Your task to perform on an android device: Go to Maps Image 0: 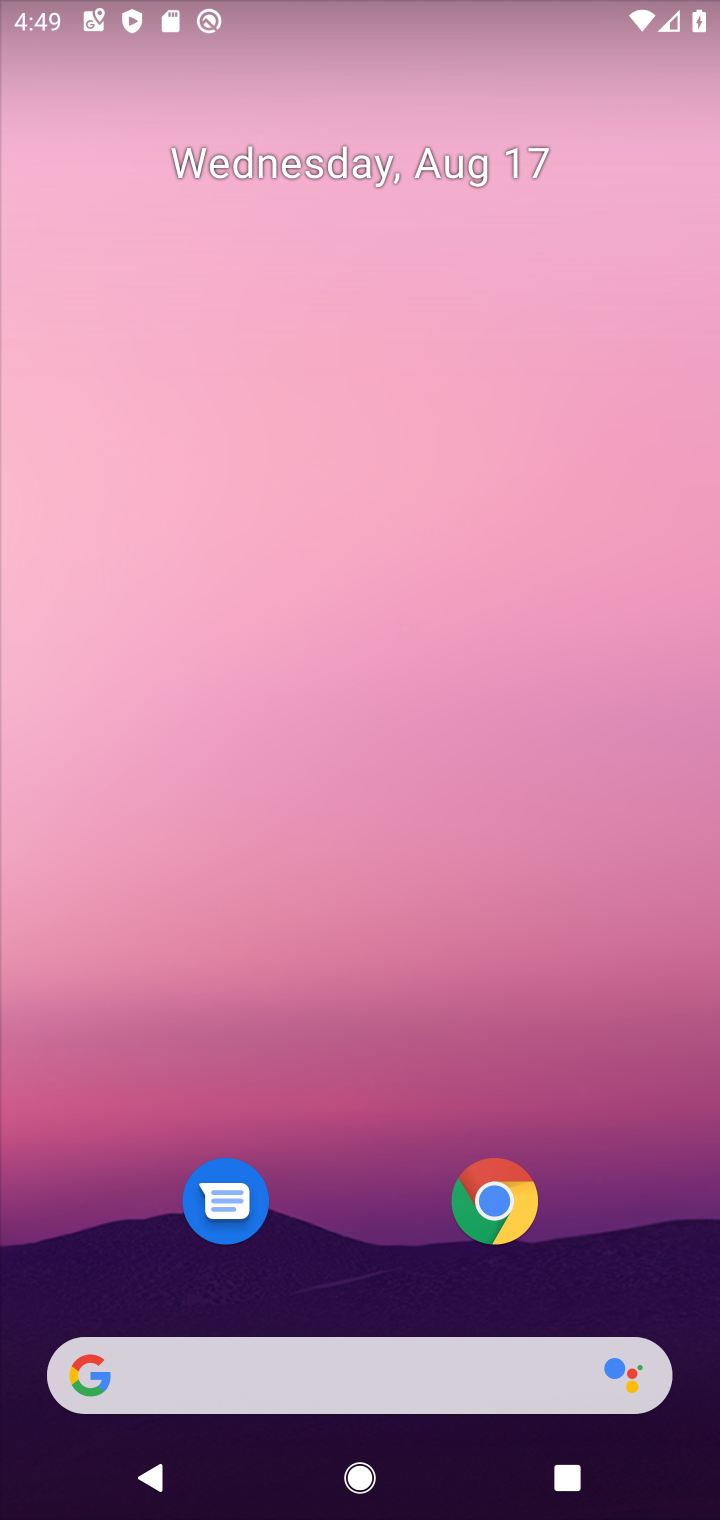
Step 0: drag from (359, 1183) to (312, 94)
Your task to perform on an android device: Go to Maps Image 1: 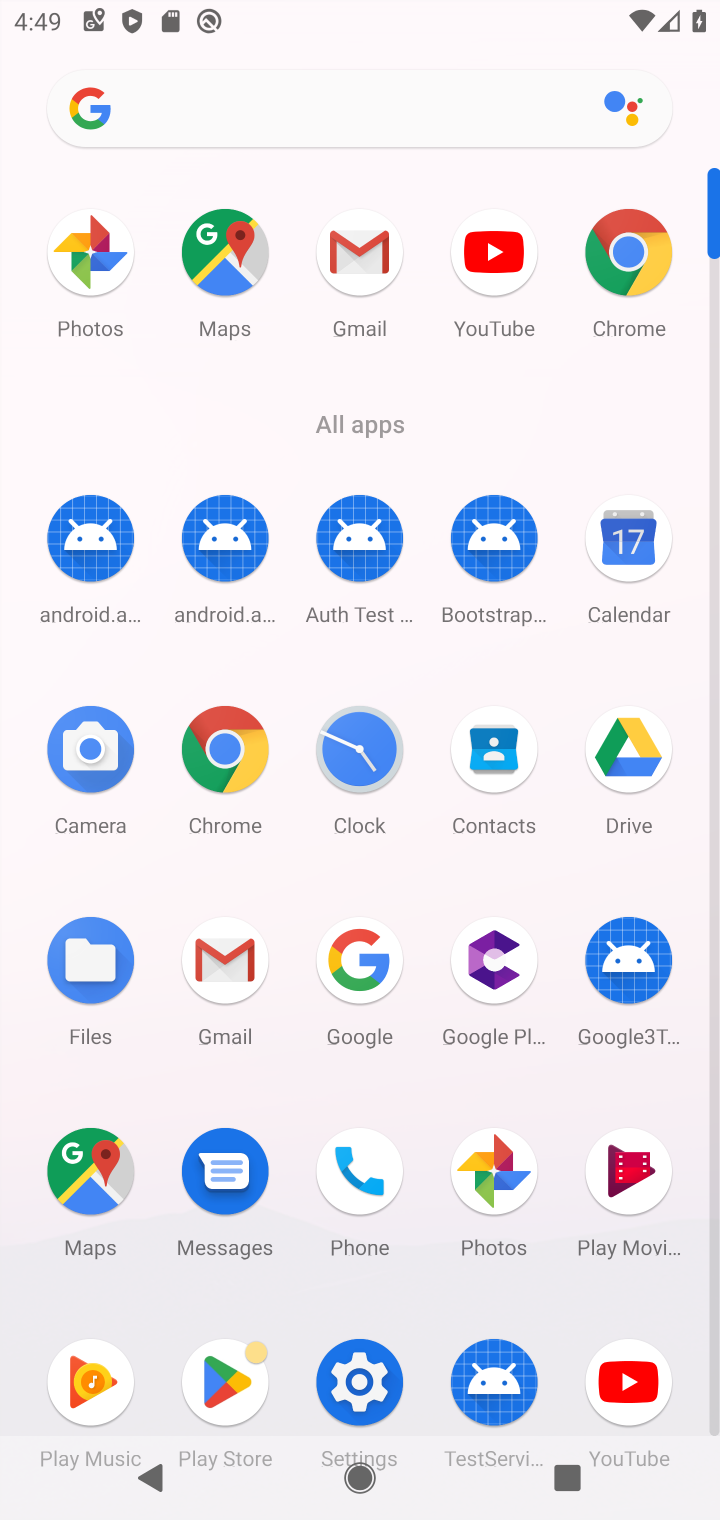
Step 1: click (98, 1187)
Your task to perform on an android device: Go to Maps Image 2: 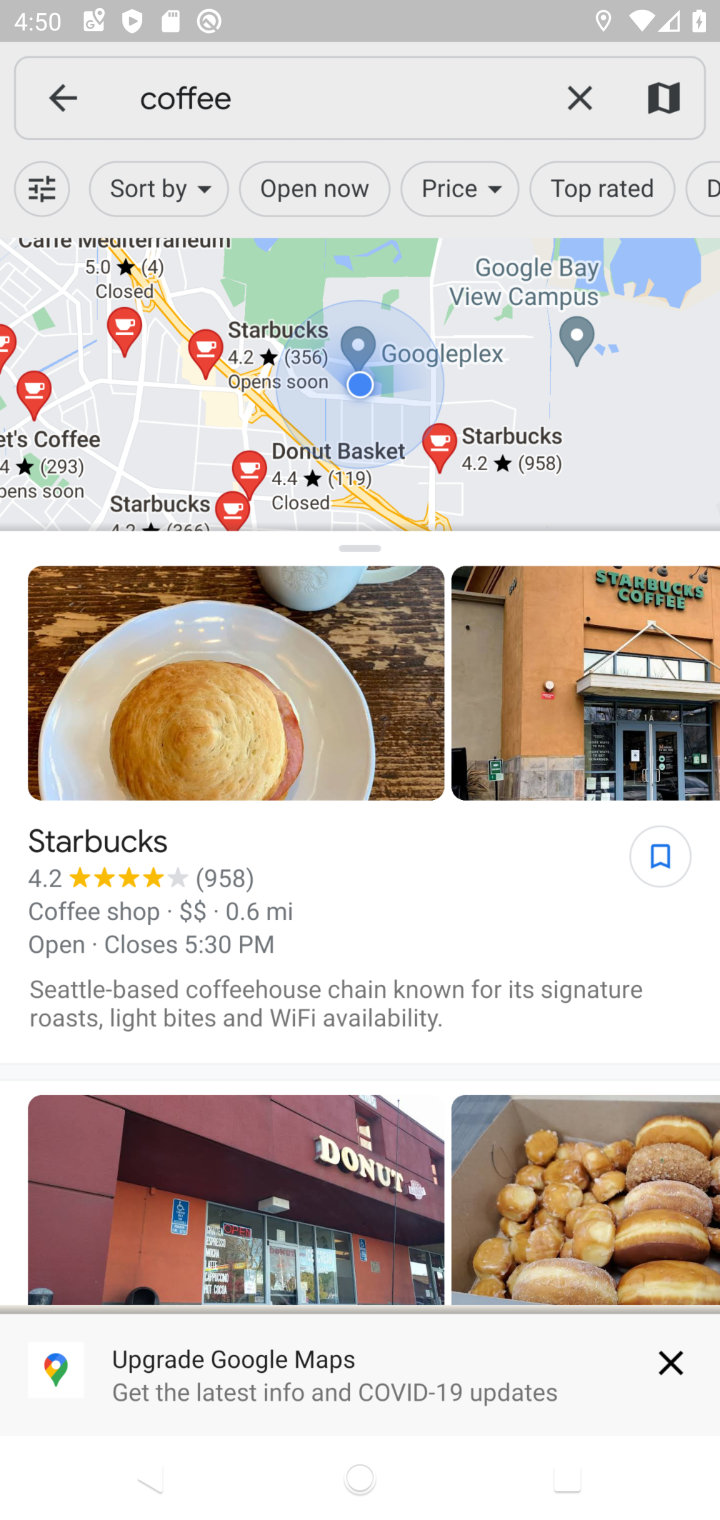
Step 2: task complete